Your task to perform on an android device: change keyboard looks Image 0: 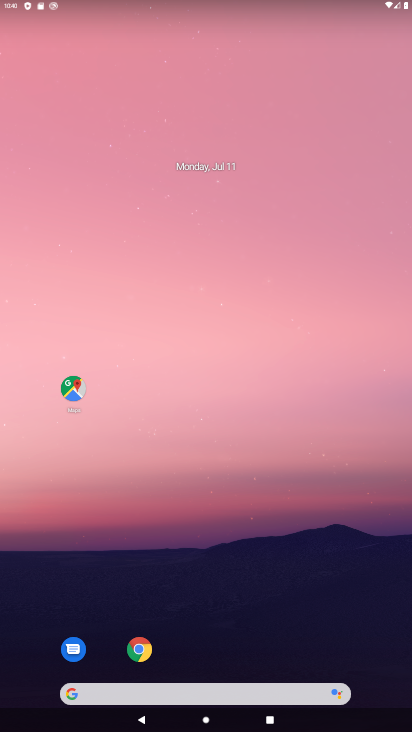
Step 0: drag from (303, 603) to (268, 123)
Your task to perform on an android device: change keyboard looks Image 1: 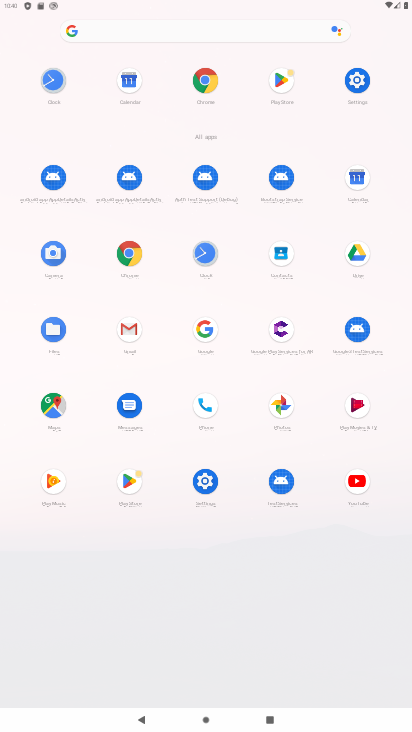
Step 1: click (363, 83)
Your task to perform on an android device: change keyboard looks Image 2: 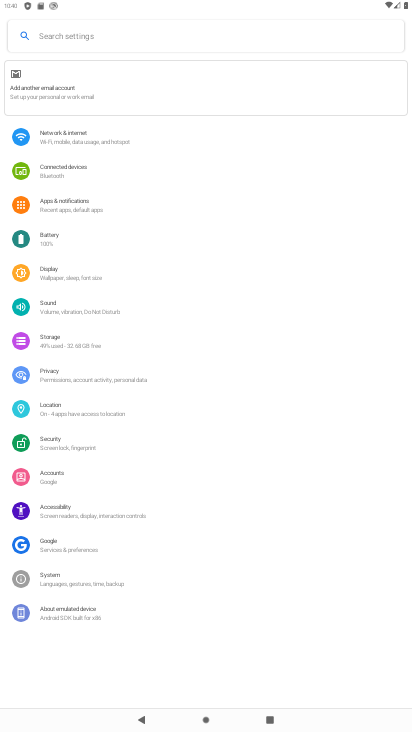
Step 2: click (81, 580)
Your task to perform on an android device: change keyboard looks Image 3: 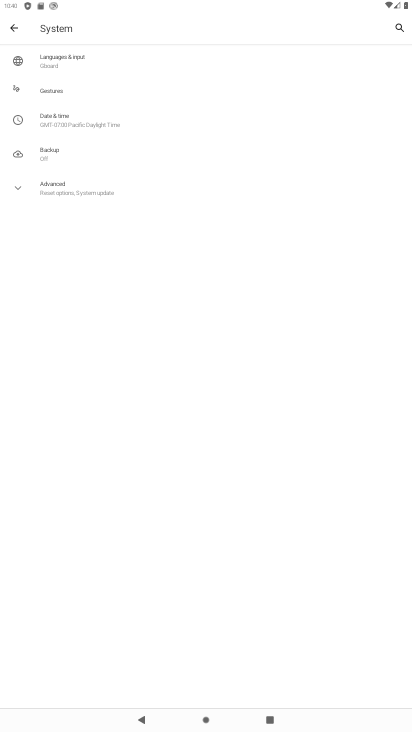
Step 3: click (77, 68)
Your task to perform on an android device: change keyboard looks Image 4: 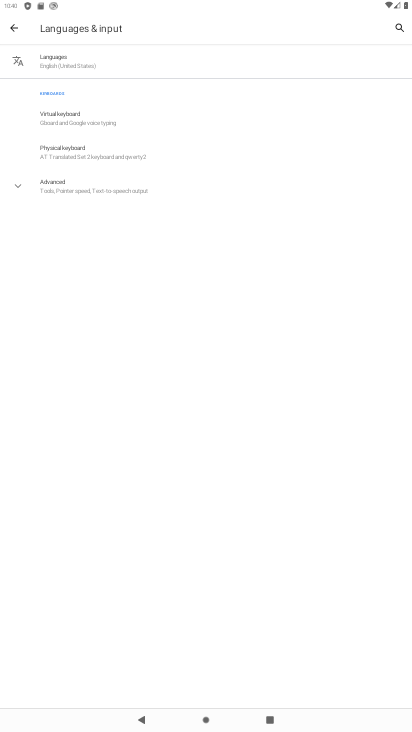
Step 4: click (70, 120)
Your task to perform on an android device: change keyboard looks Image 5: 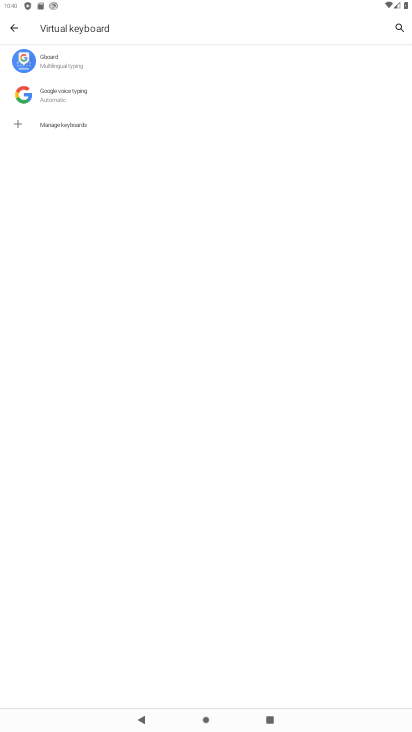
Step 5: click (58, 59)
Your task to perform on an android device: change keyboard looks Image 6: 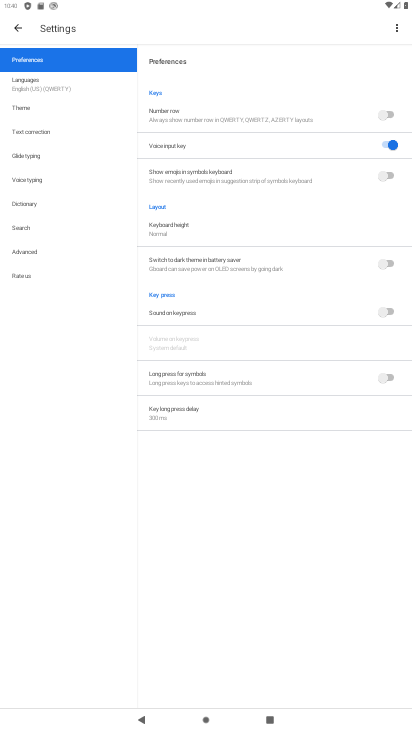
Step 6: click (29, 108)
Your task to perform on an android device: change keyboard looks Image 7: 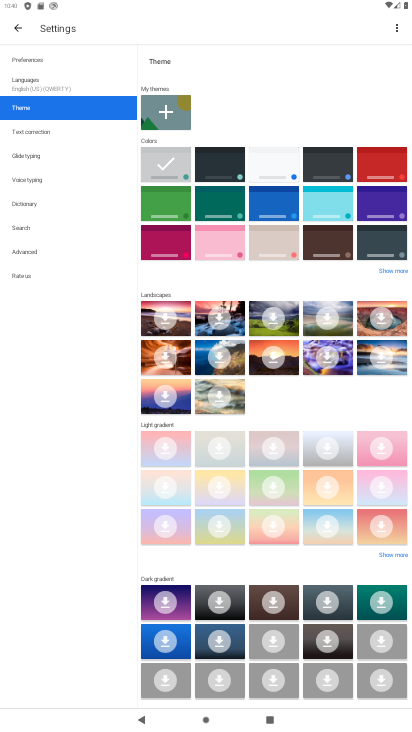
Step 7: click (273, 162)
Your task to perform on an android device: change keyboard looks Image 8: 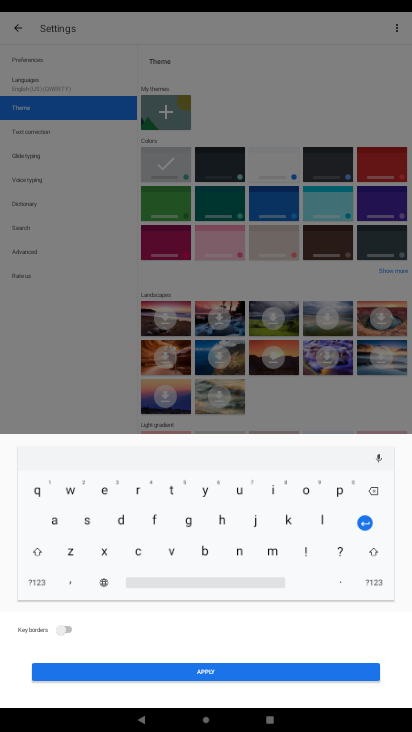
Step 8: click (277, 671)
Your task to perform on an android device: change keyboard looks Image 9: 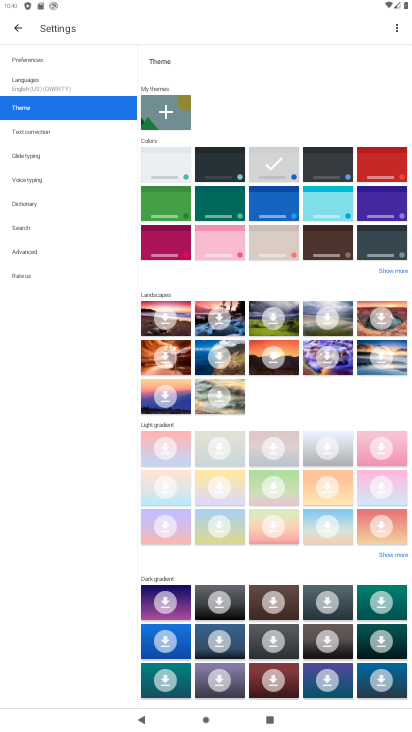
Step 9: task complete